Your task to perform on an android device: Add rayovac triple a to the cart on target, then select checkout. Image 0: 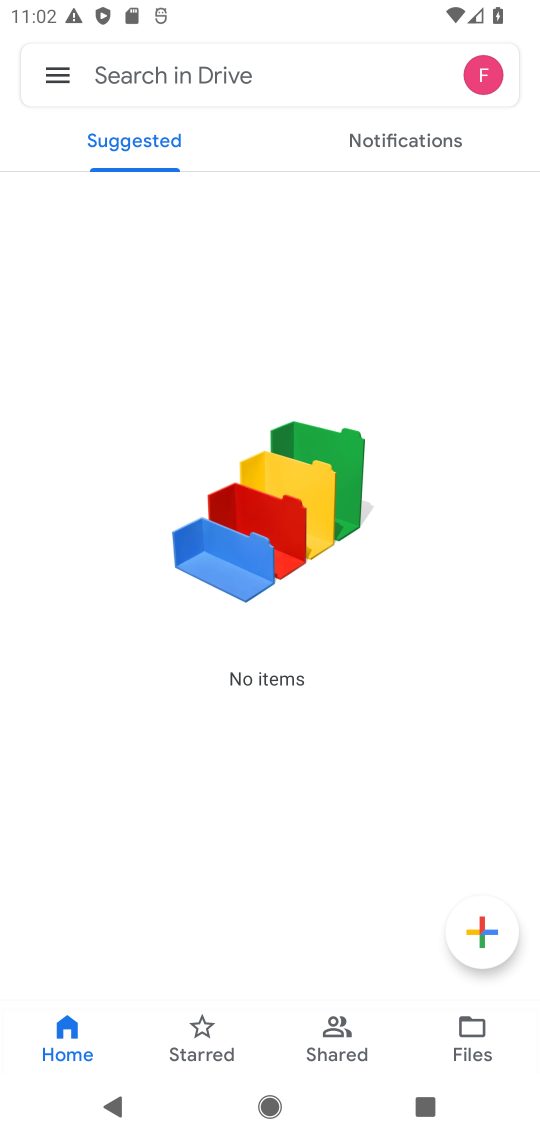
Step 0: press home button
Your task to perform on an android device: Add rayovac triple a to the cart on target, then select checkout. Image 1: 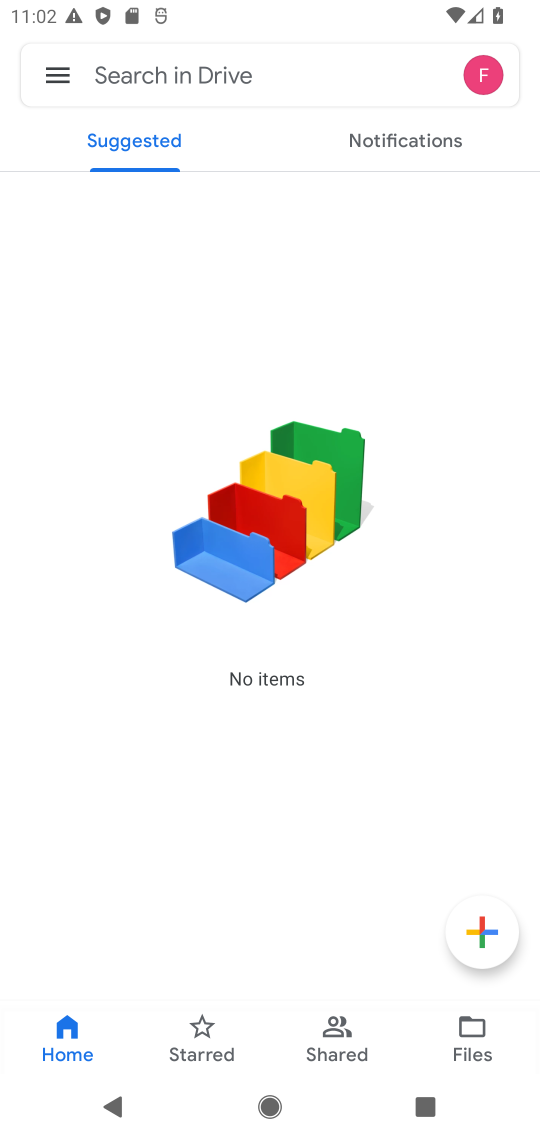
Step 1: press home button
Your task to perform on an android device: Add rayovac triple a to the cart on target, then select checkout. Image 2: 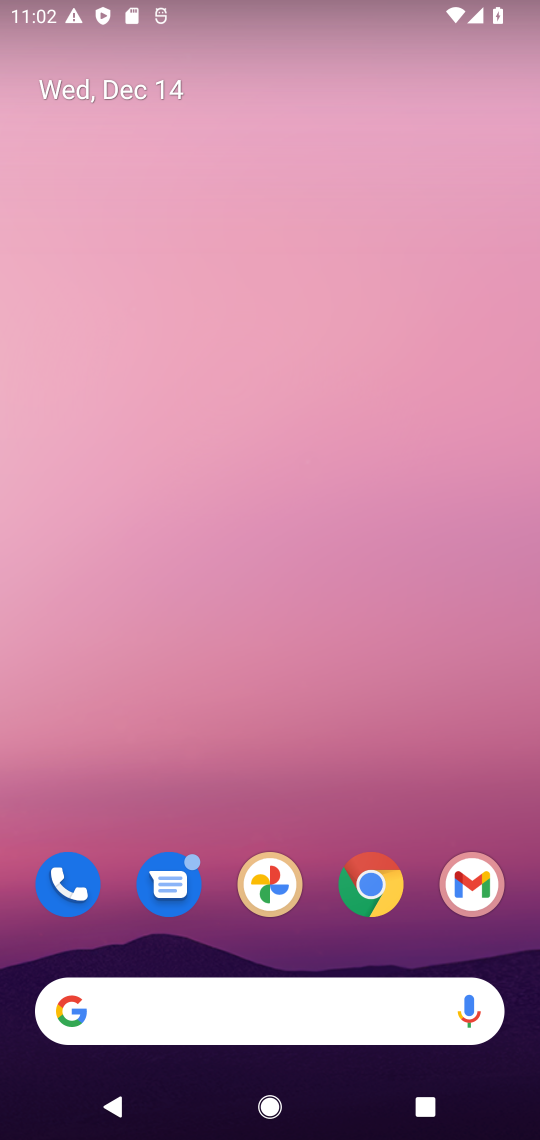
Step 2: click (363, 891)
Your task to perform on an android device: Add rayovac triple a to the cart on target, then select checkout. Image 3: 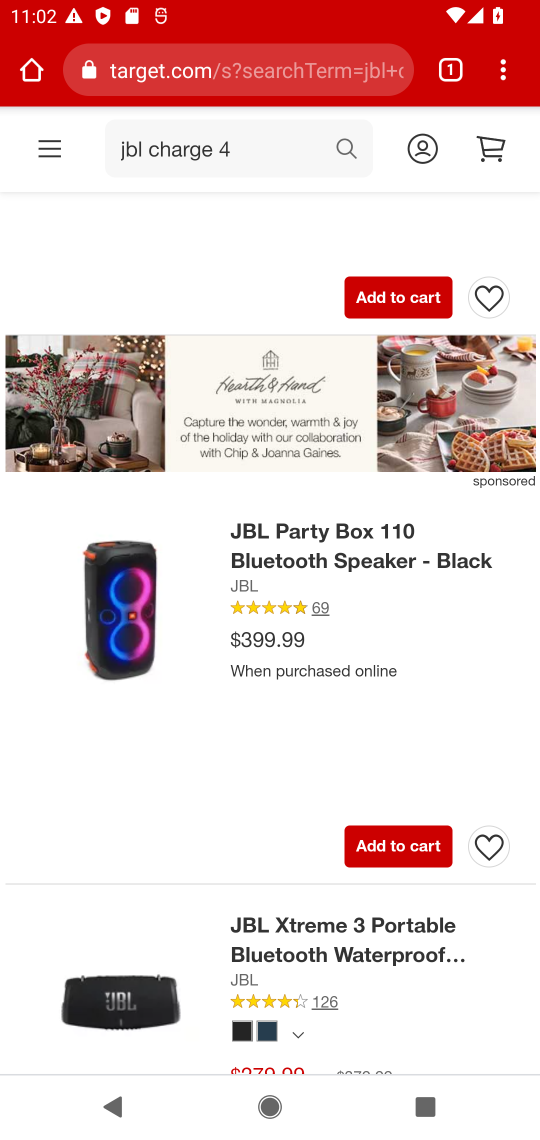
Step 3: click (185, 82)
Your task to perform on an android device: Add rayovac triple a to the cart on target, then select checkout. Image 4: 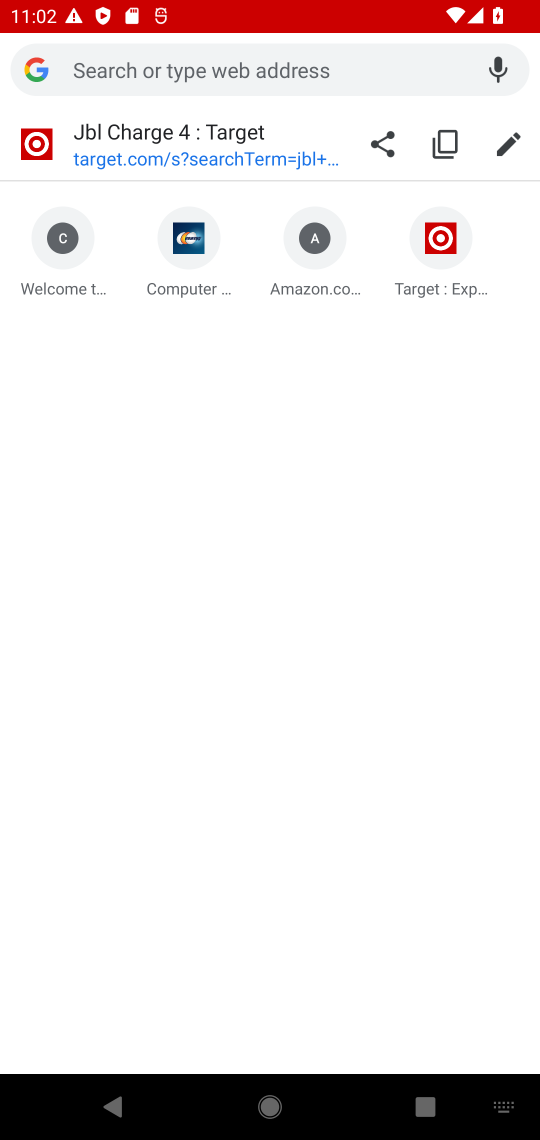
Step 4: type "target"
Your task to perform on an android device: Add rayovac triple a to the cart on target, then select checkout. Image 5: 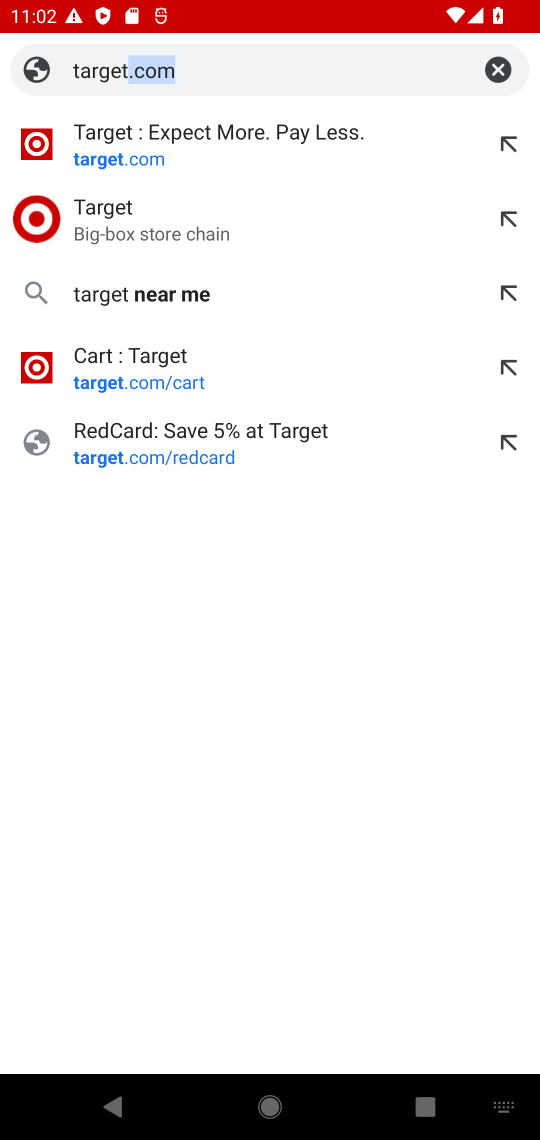
Step 5: click (241, 175)
Your task to perform on an android device: Add rayovac triple a to the cart on target, then select checkout. Image 6: 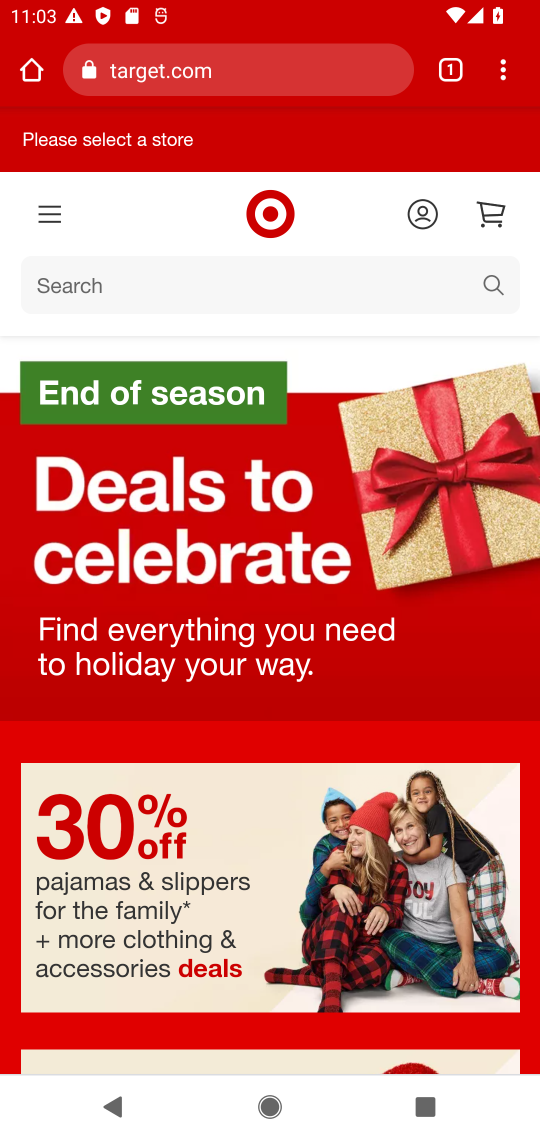
Step 6: type "rayovac triple a"
Your task to perform on an android device: Add rayovac triple a to the cart on target, then select checkout. Image 7: 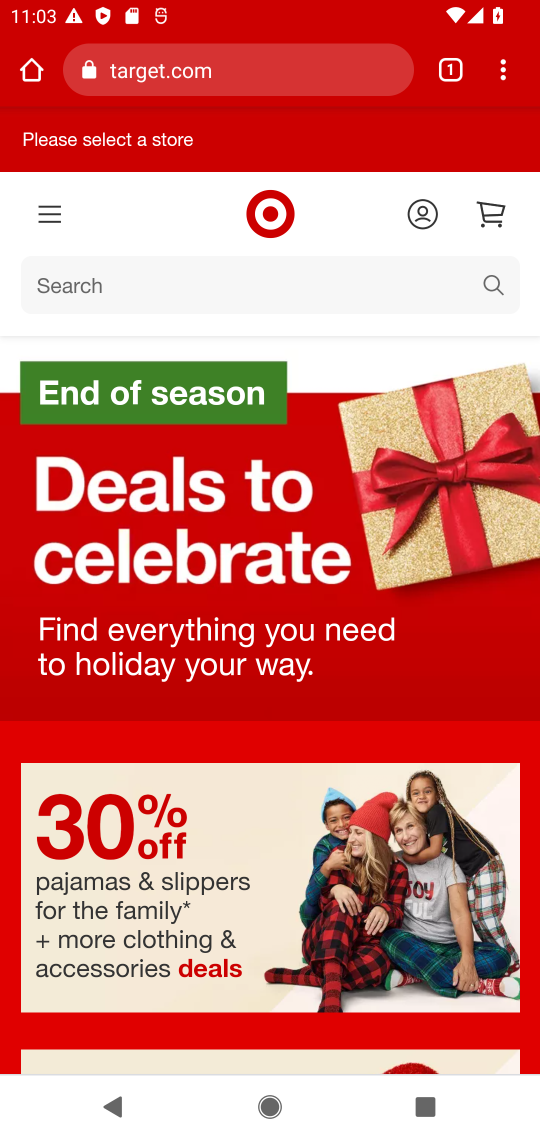
Step 7: click (107, 299)
Your task to perform on an android device: Add rayovac triple a to the cart on target, then select checkout. Image 8: 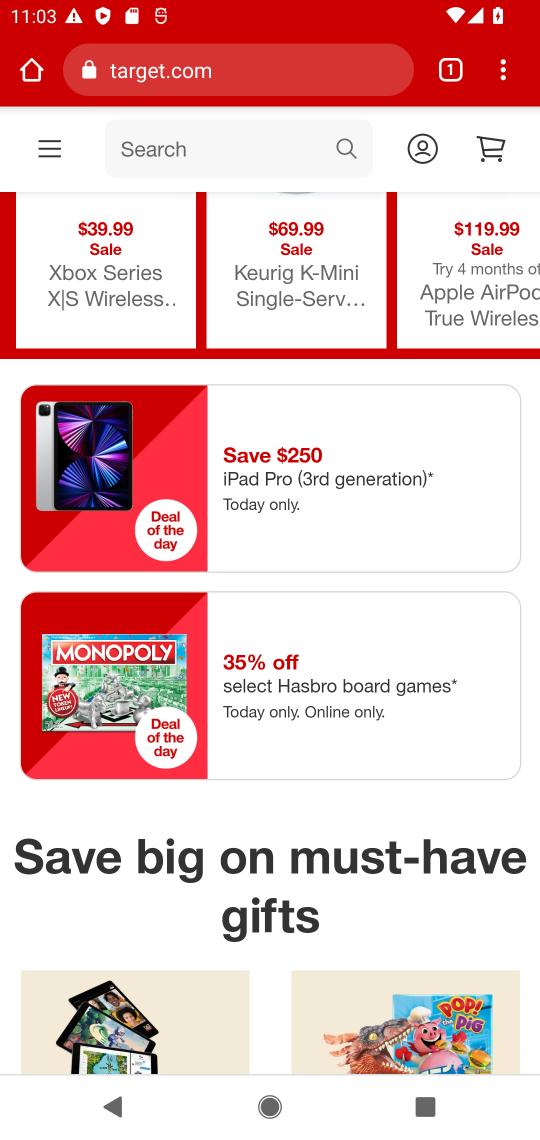
Step 8: click (158, 159)
Your task to perform on an android device: Add rayovac triple a to the cart on target, then select checkout. Image 9: 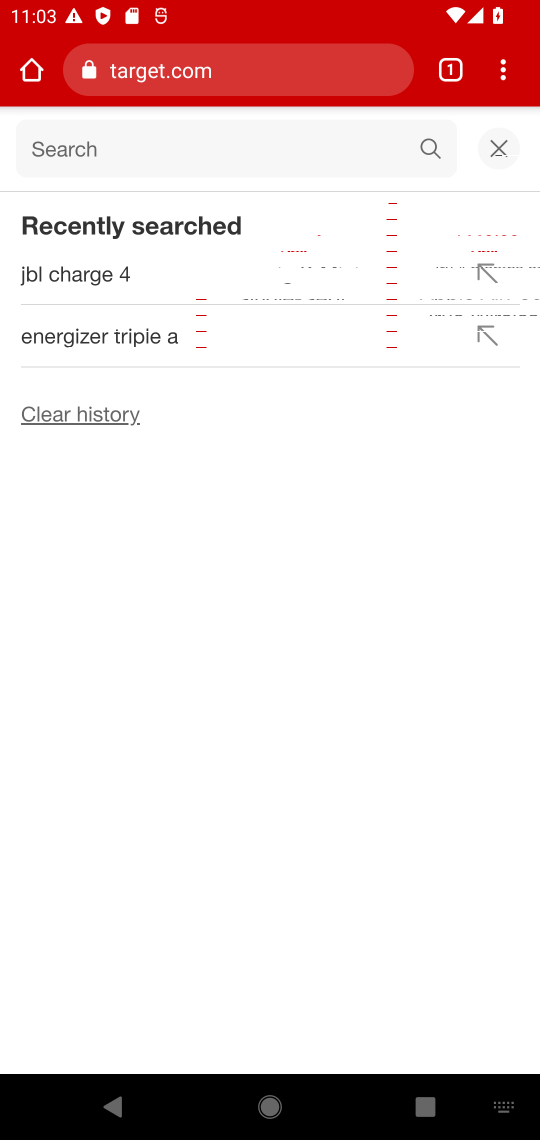
Step 9: type "rayovac triple a"
Your task to perform on an android device: Add rayovac triple a to the cart on target, then select checkout. Image 10: 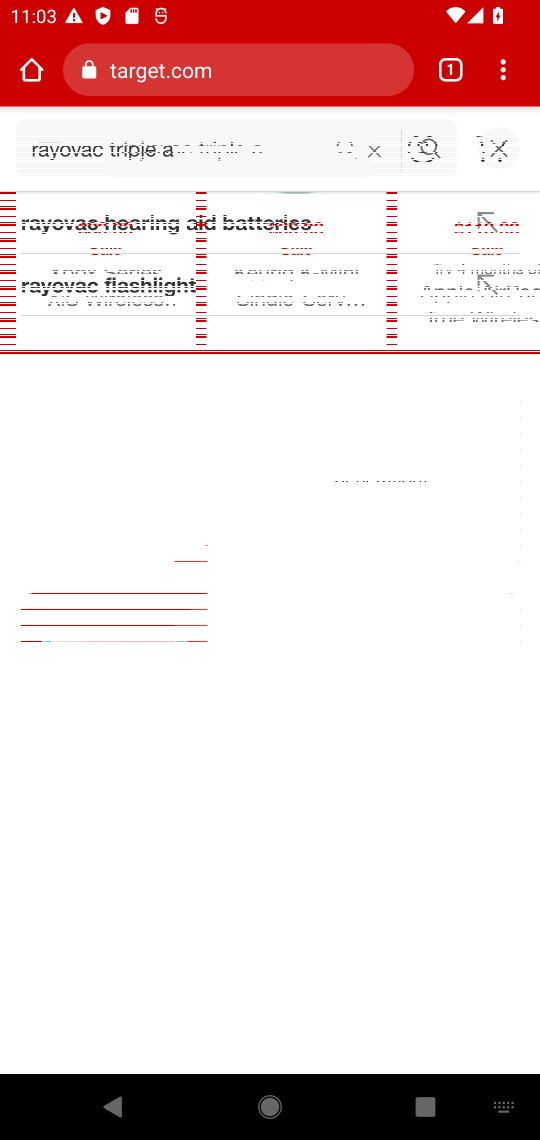
Step 10: press enter
Your task to perform on an android device: Add rayovac triple a to the cart on target, then select checkout. Image 11: 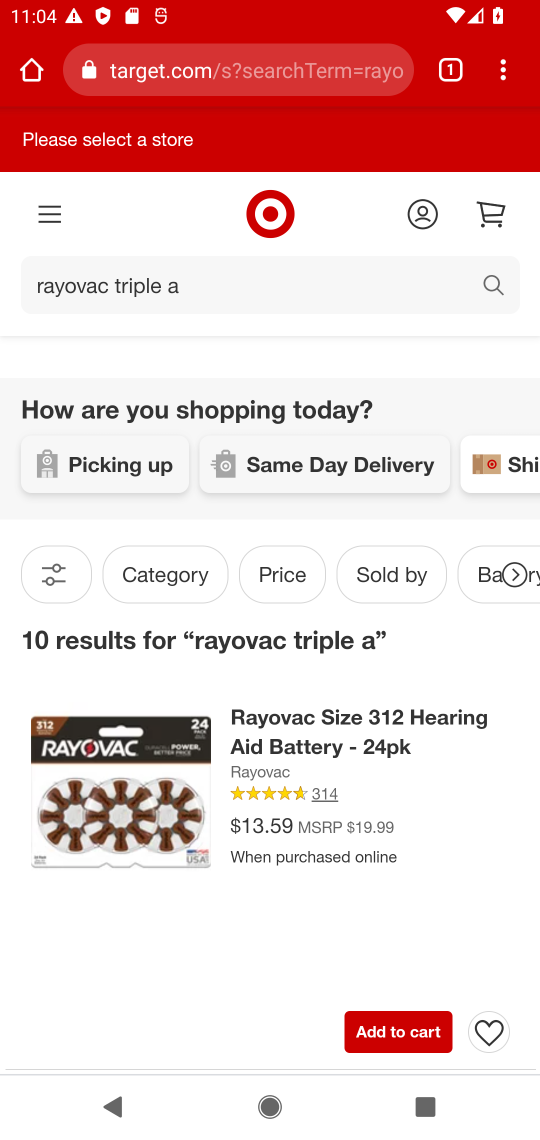
Step 11: task complete